Your task to perform on an android device: Go to display settings Image 0: 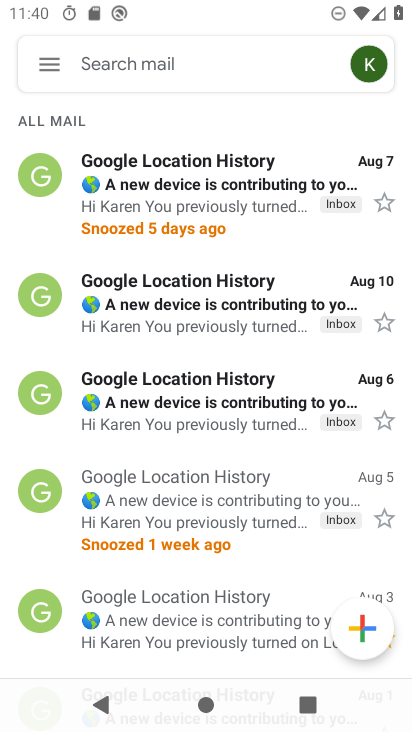
Step 0: press home button
Your task to perform on an android device: Go to display settings Image 1: 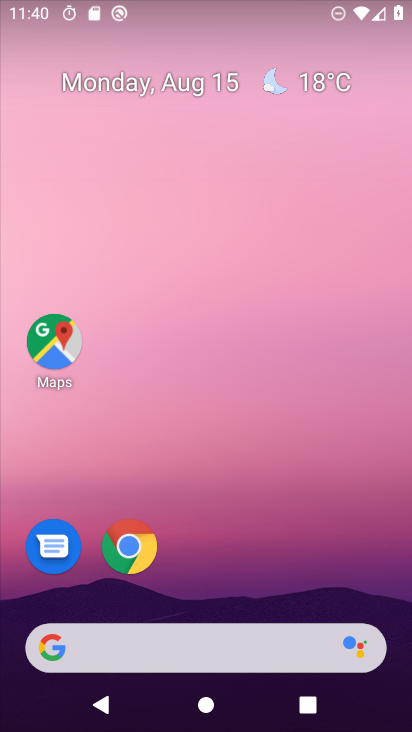
Step 1: drag from (226, 513) to (229, 83)
Your task to perform on an android device: Go to display settings Image 2: 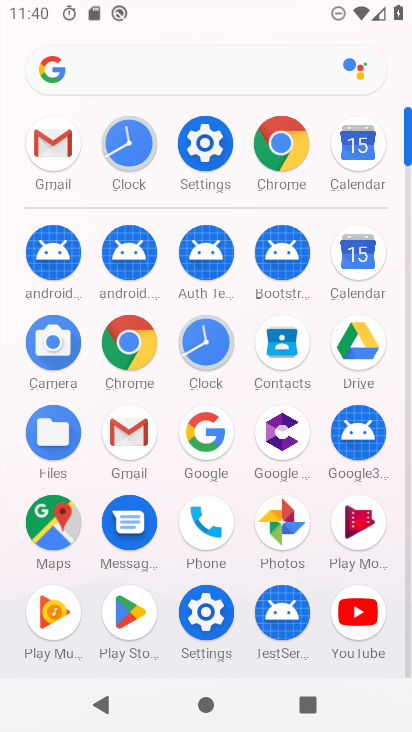
Step 2: click (208, 144)
Your task to perform on an android device: Go to display settings Image 3: 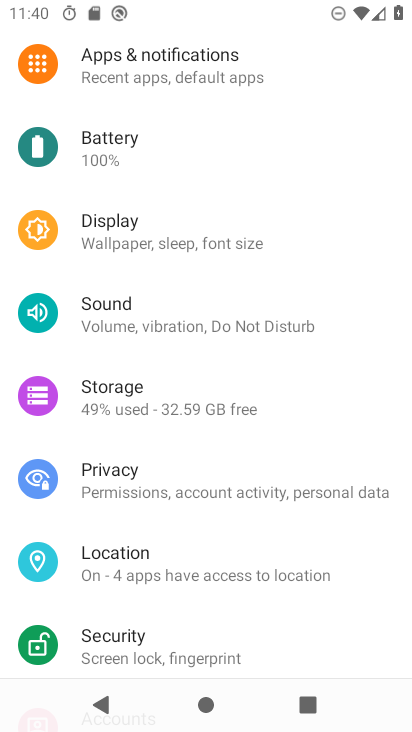
Step 3: click (109, 234)
Your task to perform on an android device: Go to display settings Image 4: 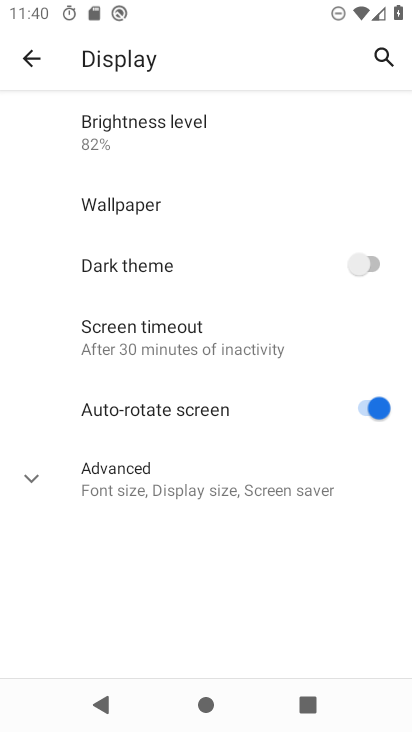
Step 4: task complete